Your task to perform on an android device: Open privacy settings Image 0: 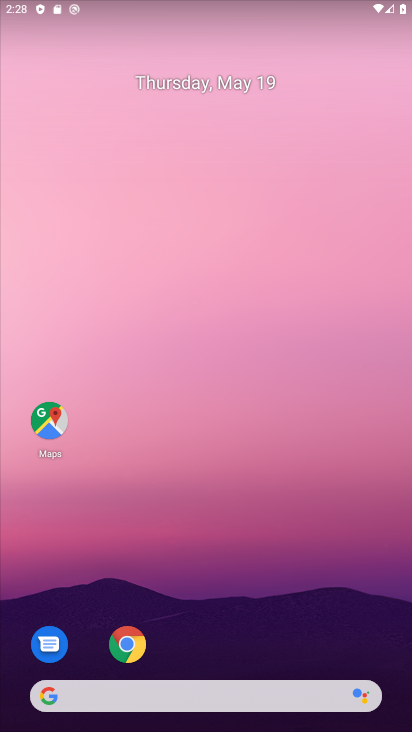
Step 0: drag from (254, 618) to (271, 144)
Your task to perform on an android device: Open privacy settings Image 1: 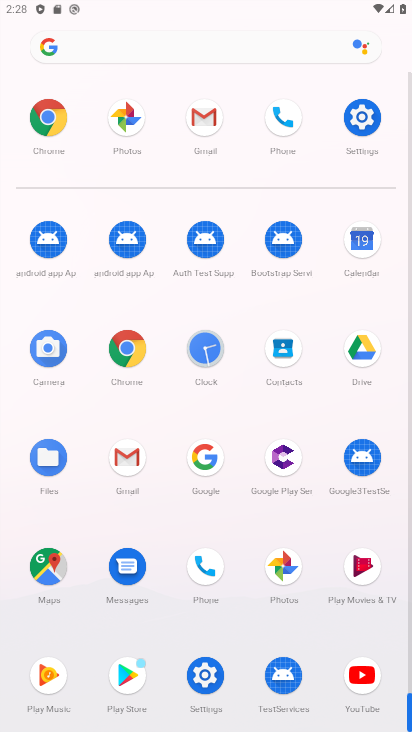
Step 1: click (356, 123)
Your task to perform on an android device: Open privacy settings Image 2: 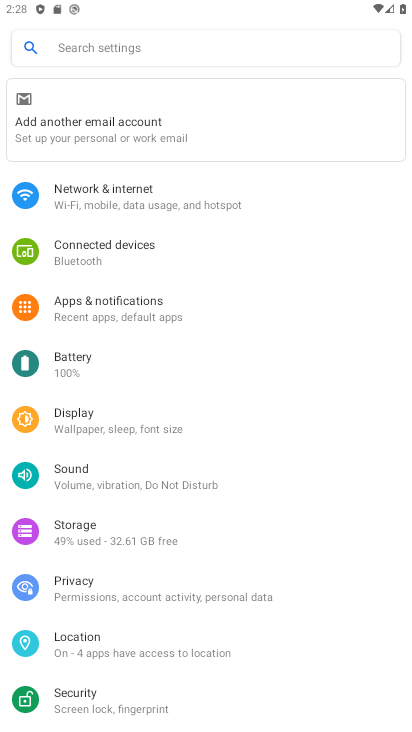
Step 2: click (104, 581)
Your task to perform on an android device: Open privacy settings Image 3: 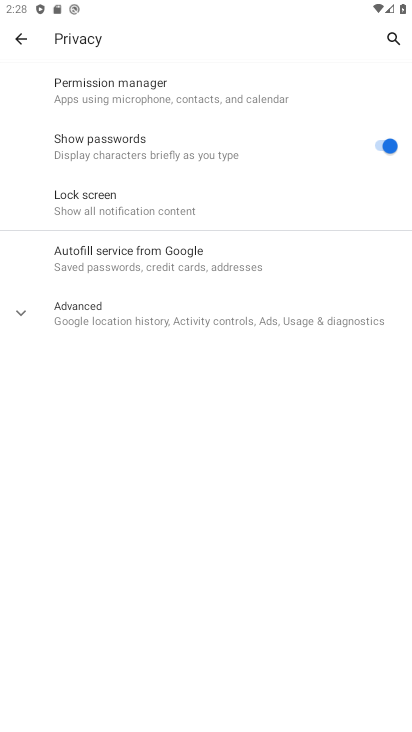
Step 3: task complete